Your task to perform on an android device: add a contact Image 0: 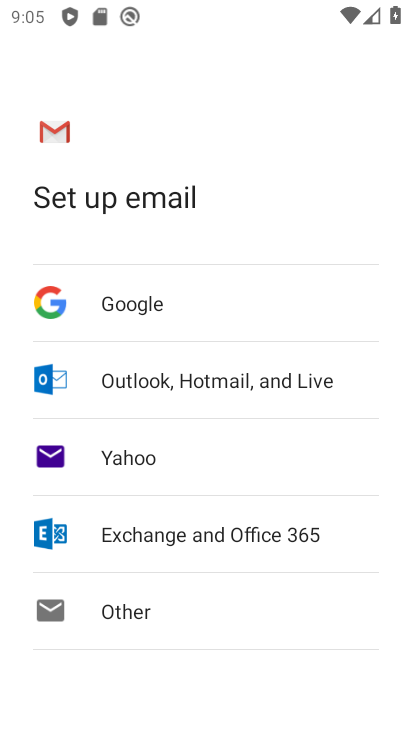
Step 0: press home button
Your task to perform on an android device: add a contact Image 1: 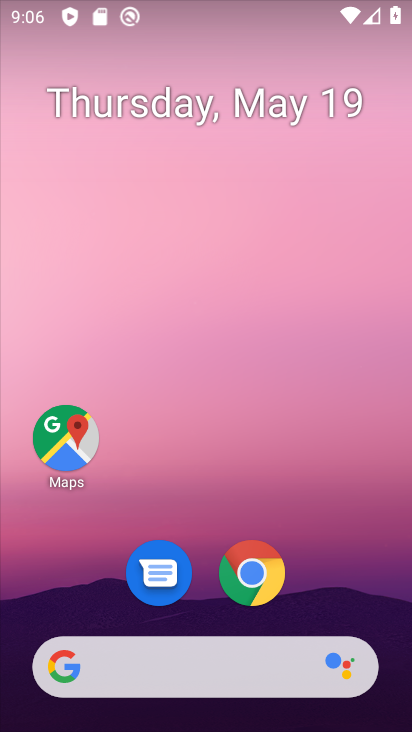
Step 1: drag from (222, 593) to (202, 269)
Your task to perform on an android device: add a contact Image 2: 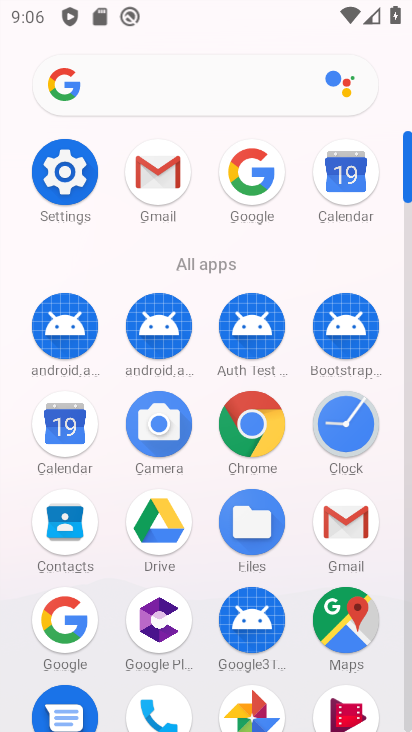
Step 2: click (64, 523)
Your task to perform on an android device: add a contact Image 3: 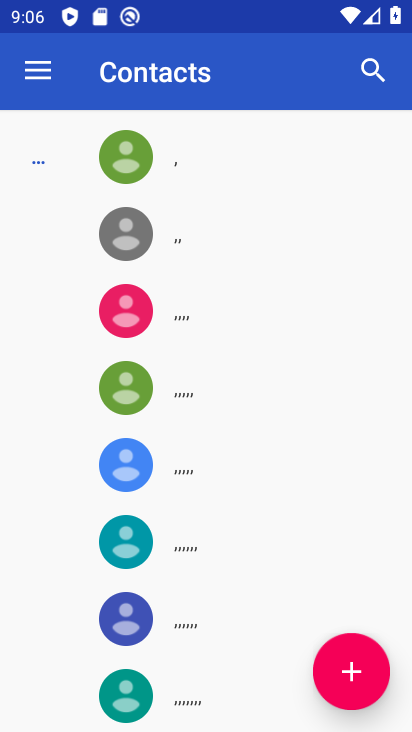
Step 3: click (357, 658)
Your task to perform on an android device: add a contact Image 4: 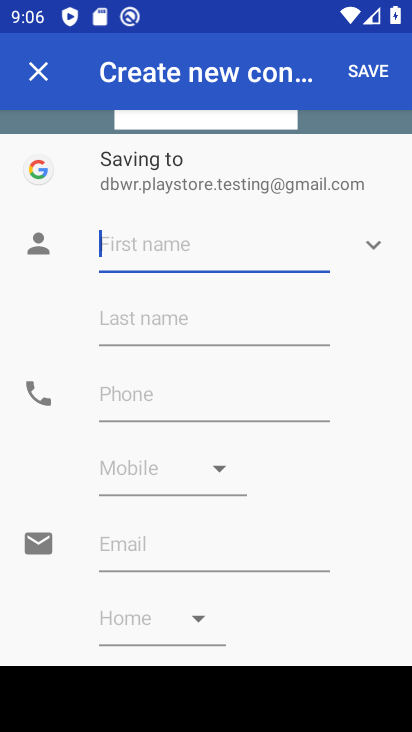
Step 4: type "jhj"
Your task to perform on an android device: add a contact Image 5: 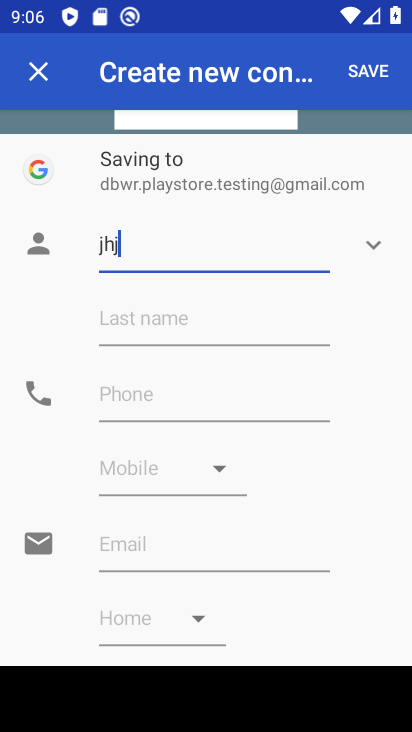
Step 5: click (272, 396)
Your task to perform on an android device: add a contact Image 6: 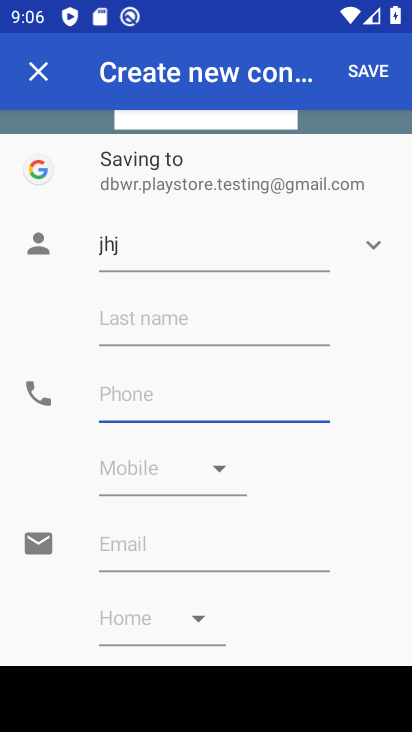
Step 6: type "8764687476"
Your task to perform on an android device: add a contact Image 7: 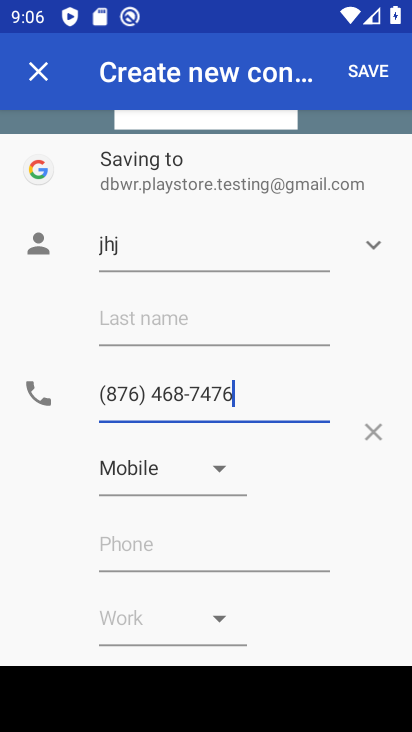
Step 7: click (353, 75)
Your task to perform on an android device: add a contact Image 8: 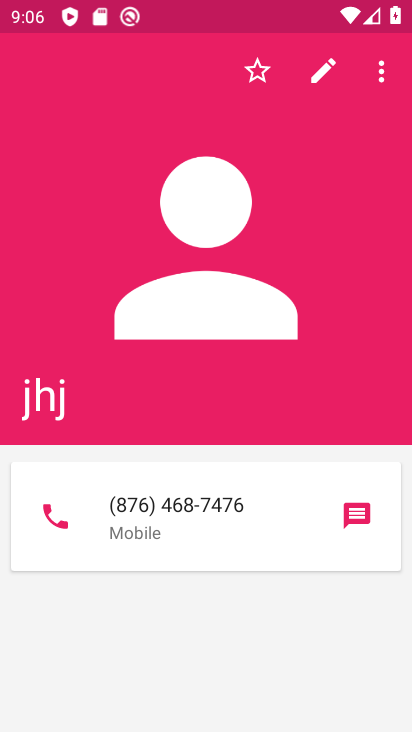
Step 8: task complete